Your task to perform on an android device: Is it going to rain today? Image 0: 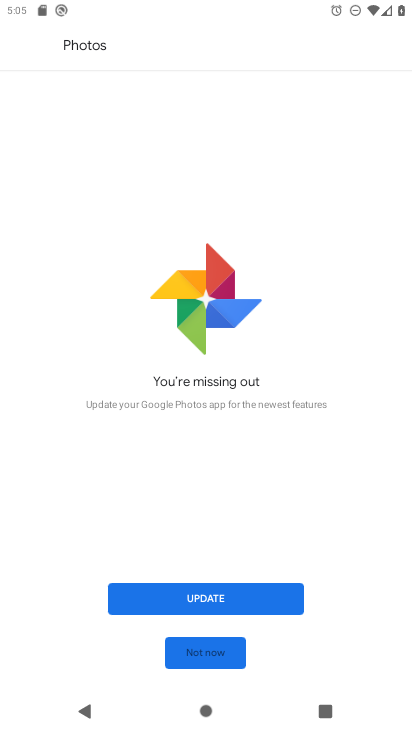
Step 0: press home button
Your task to perform on an android device: Is it going to rain today? Image 1: 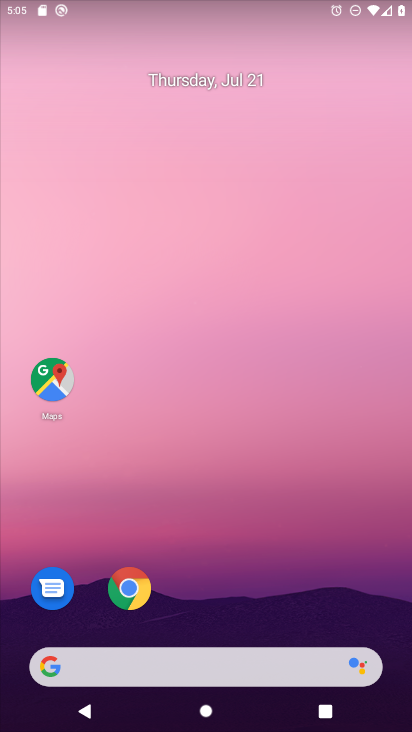
Step 1: click (115, 593)
Your task to perform on an android device: Is it going to rain today? Image 2: 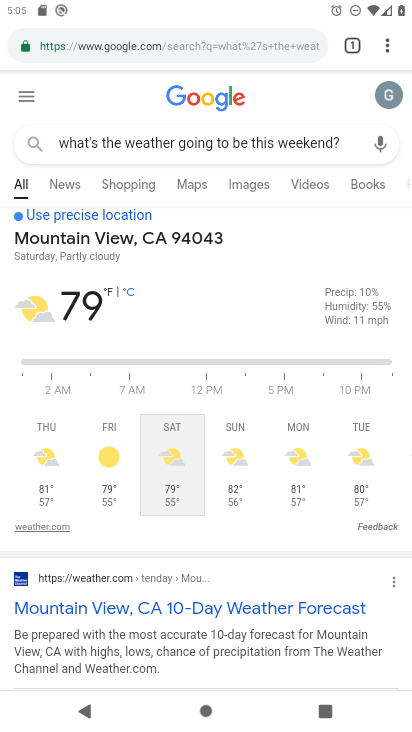
Step 2: click (327, 153)
Your task to perform on an android device: Is it going to rain today? Image 3: 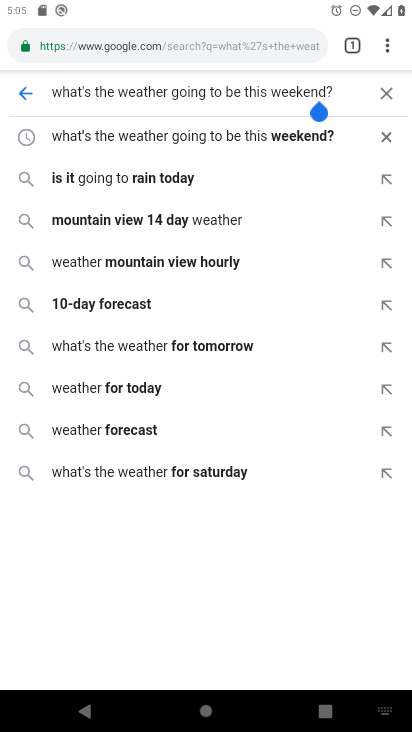
Step 3: click (391, 95)
Your task to perform on an android device: Is it going to rain today? Image 4: 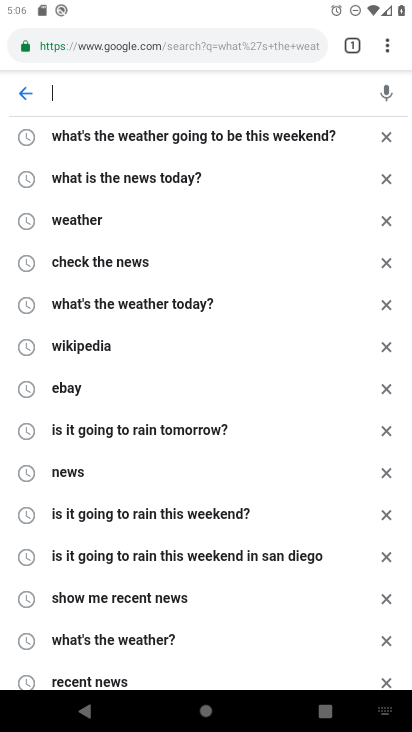
Step 4: type "Is it going to rain today?"
Your task to perform on an android device: Is it going to rain today? Image 5: 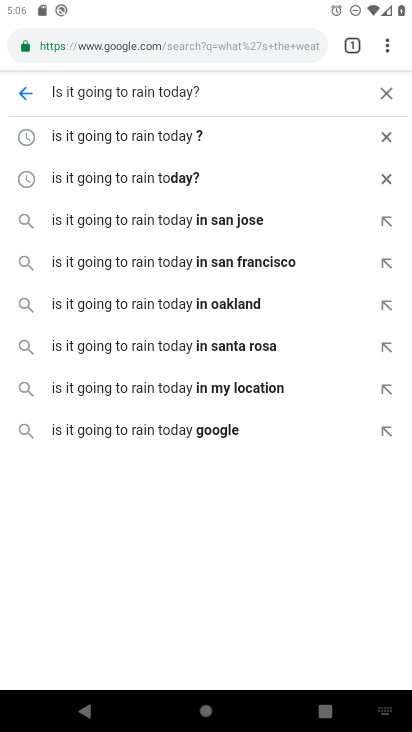
Step 5: click (179, 147)
Your task to perform on an android device: Is it going to rain today? Image 6: 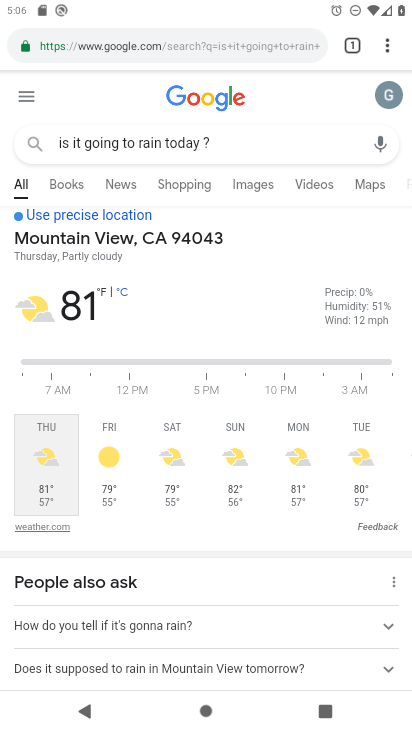
Step 6: task complete